Your task to perform on an android device: check android version Image 0: 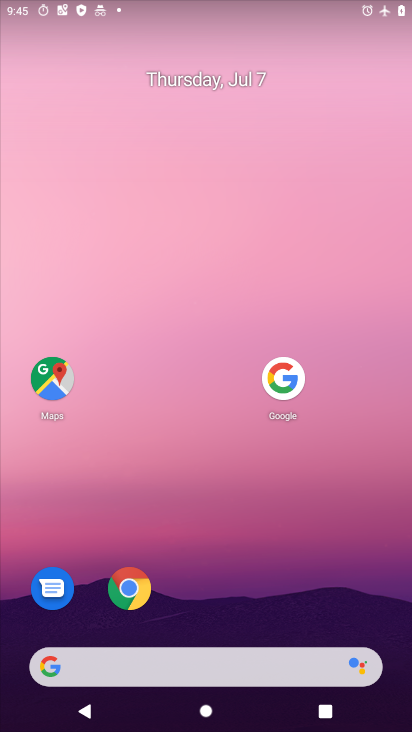
Step 0: drag from (214, 666) to (344, 20)
Your task to perform on an android device: check android version Image 1: 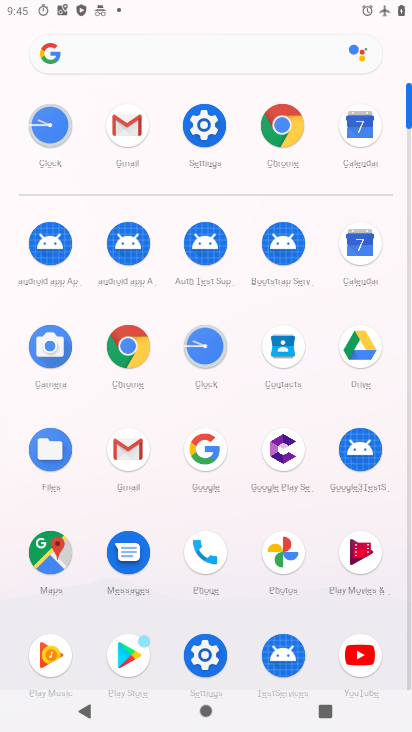
Step 1: click (198, 121)
Your task to perform on an android device: check android version Image 2: 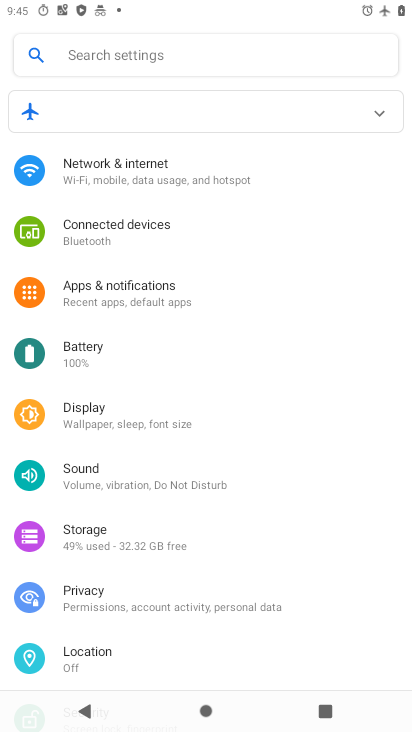
Step 2: drag from (236, 649) to (405, 103)
Your task to perform on an android device: check android version Image 3: 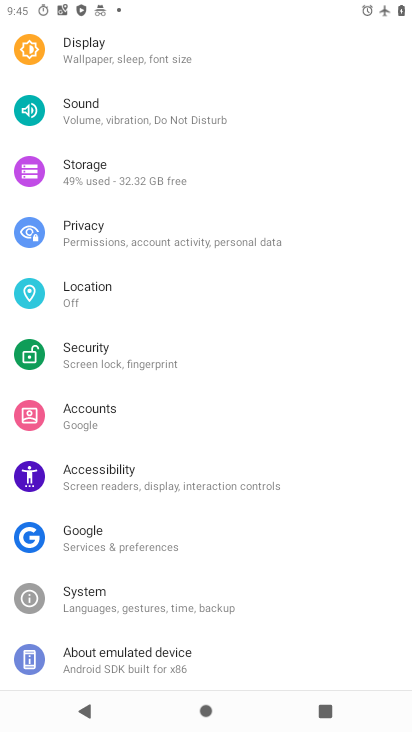
Step 3: click (155, 657)
Your task to perform on an android device: check android version Image 4: 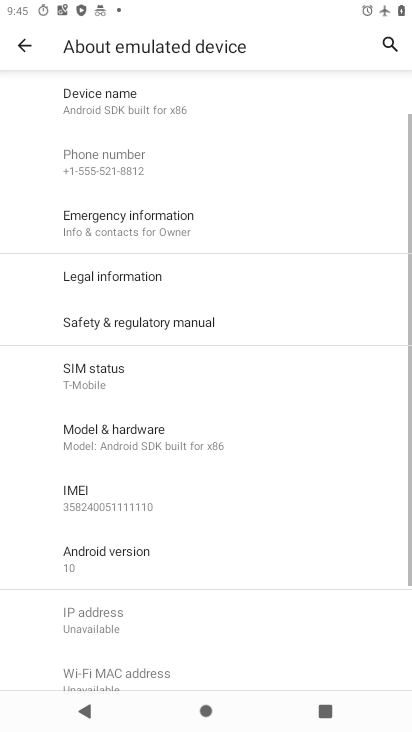
Step 4: drag from (331, 122) to (286, 614)
Your task to perform on an android device: check android version Image 5: 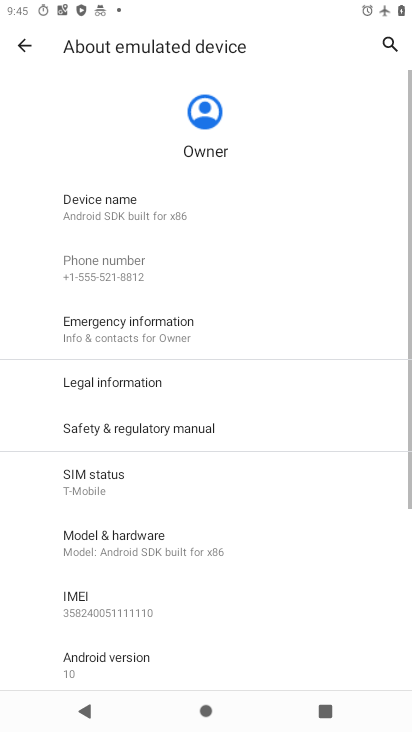
Step 5: drag from (298, 505) to (402, 103)
Your task to perform on an android device: check android version Image 6: 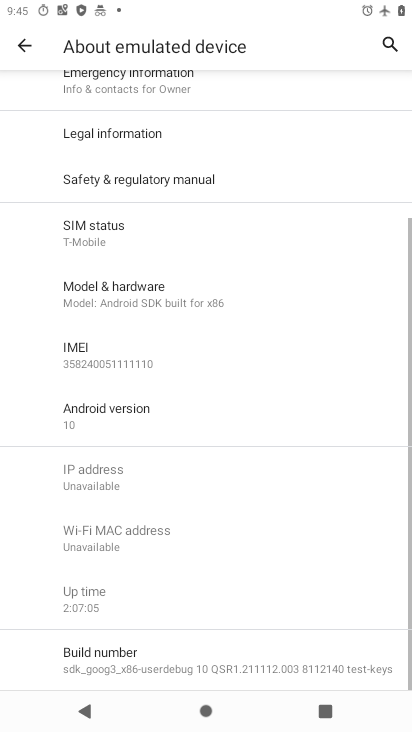
Step 6: click (143, 409)
Your task to perform on an android device: check android version Image 7: 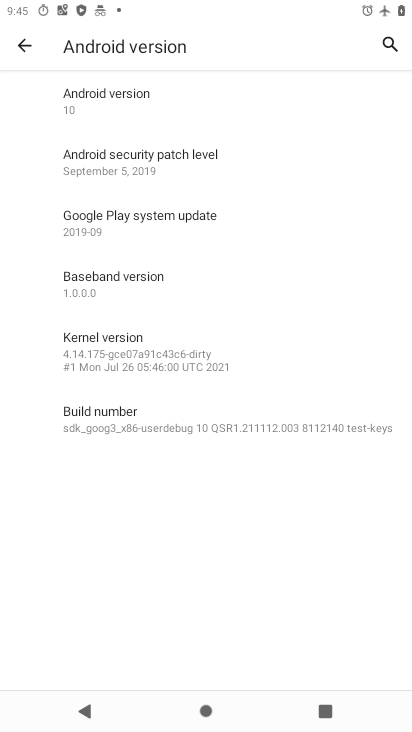
Step 7: task complete